Your task to perform on an android device: Open ESPN.com Image 0: 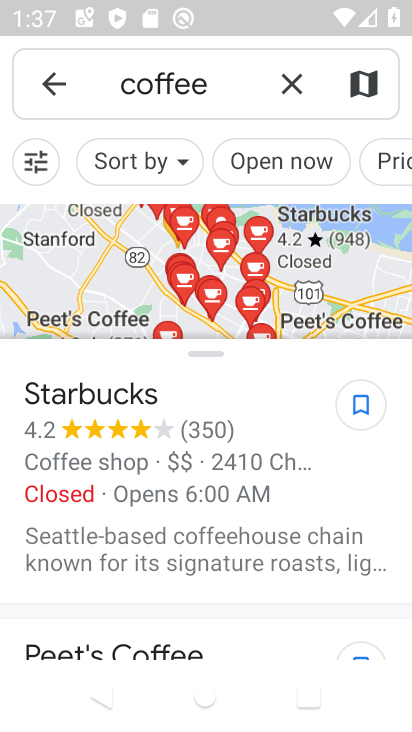
Step 0: press home button
Your task to perform on an android device: Open ESPN.com Image 1: 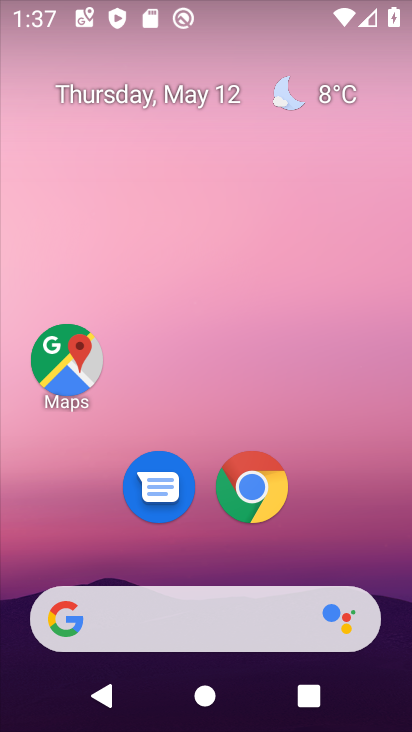
Step 1: click (272, 485)
Your task to perform on an android device: Open ESPN.com Image 2: 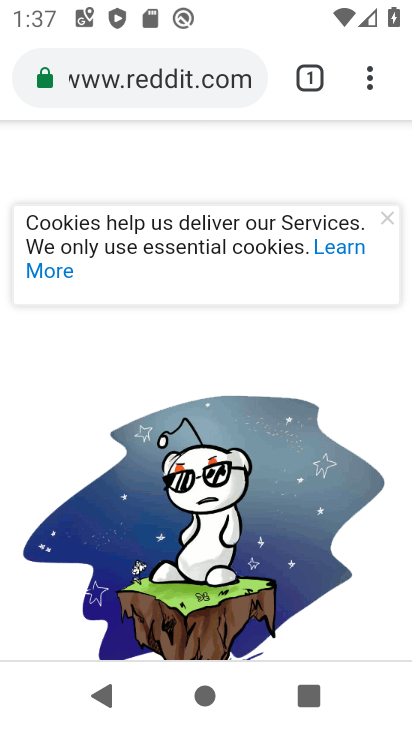
Step 2: click (171, 74)
Your task to perform on an android device: Open ESPN.com Image 3: 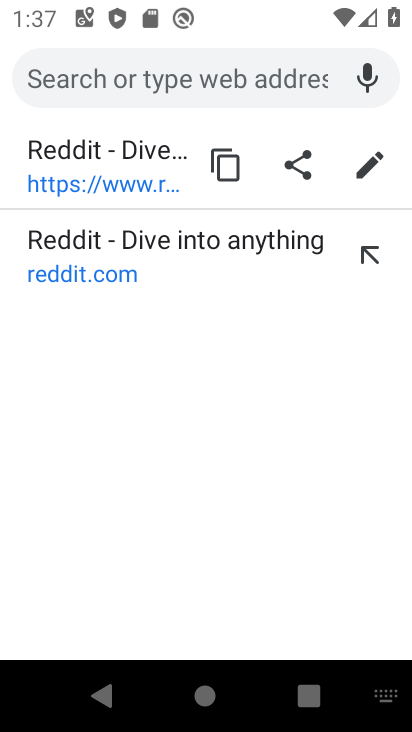
Step 3: type "ESPN.com"
Your task to perform on an android device: Open ESPN.com Image 4: 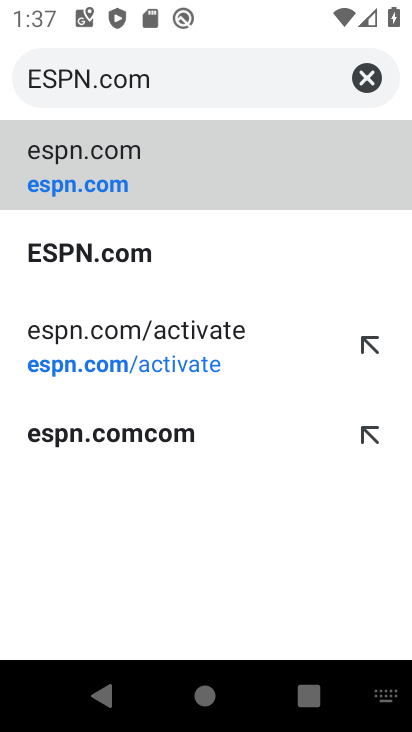
Step 4: click (87, 175)
Your task to perform on an android device: Open ESPN.com Image 5: 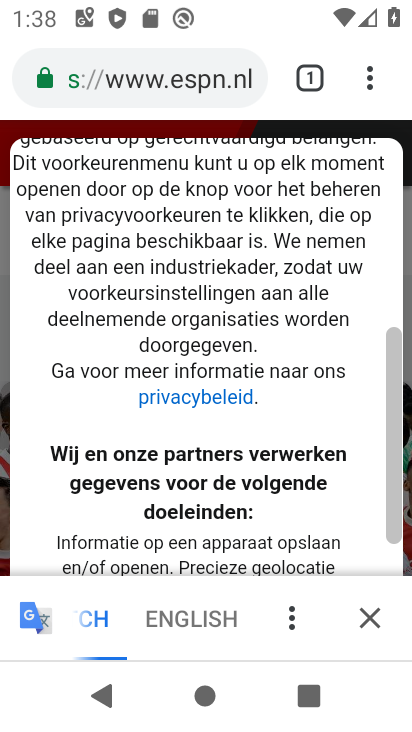
Step 5: task complete